Your task to perform on an android device: open wifi settings Image 0: 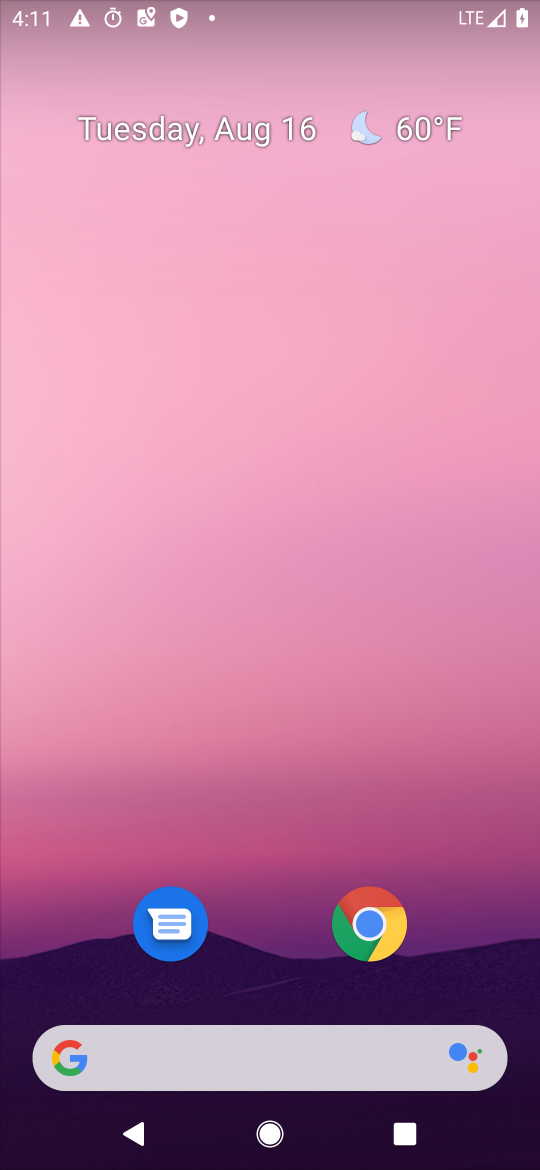
Step 0: drag from (301, 9) to (373, 723)
Your task to perform on an android device: open wifi settings Image 1: 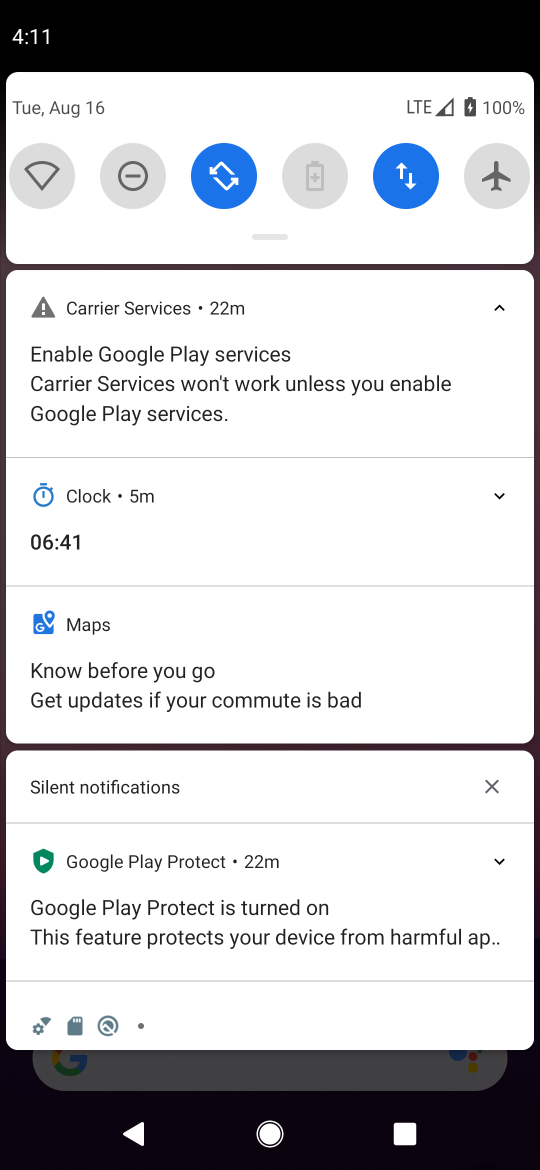
Step 1: click (54, 196)
Your task to perform on an android device: open wifi settings Image 2: 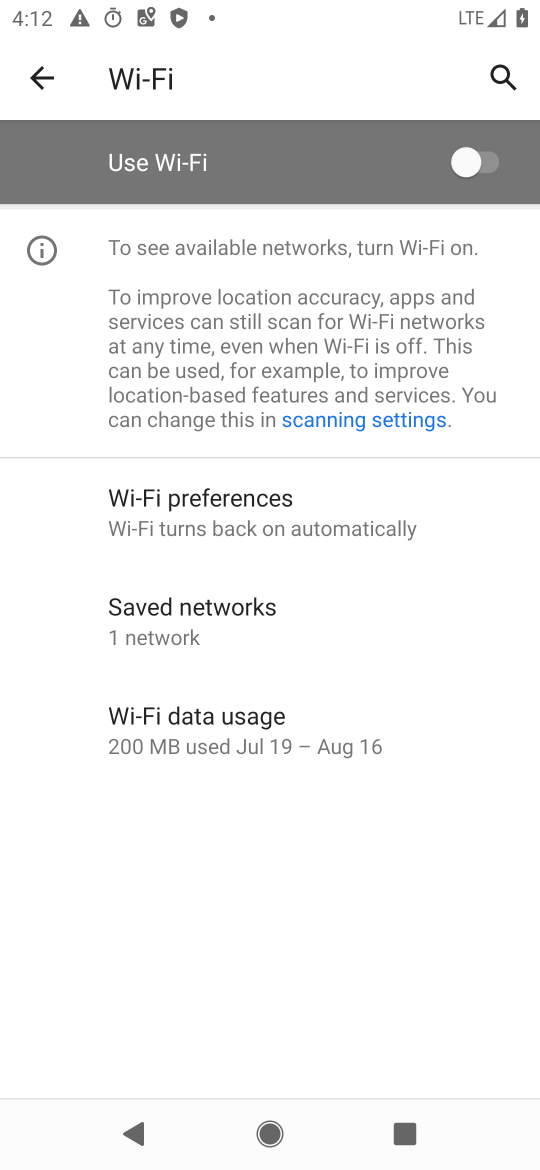
Step 2: task complete